Your task to perform on an android device: How much does a 2 bedroom apartment rent for in Austin? Image 0: 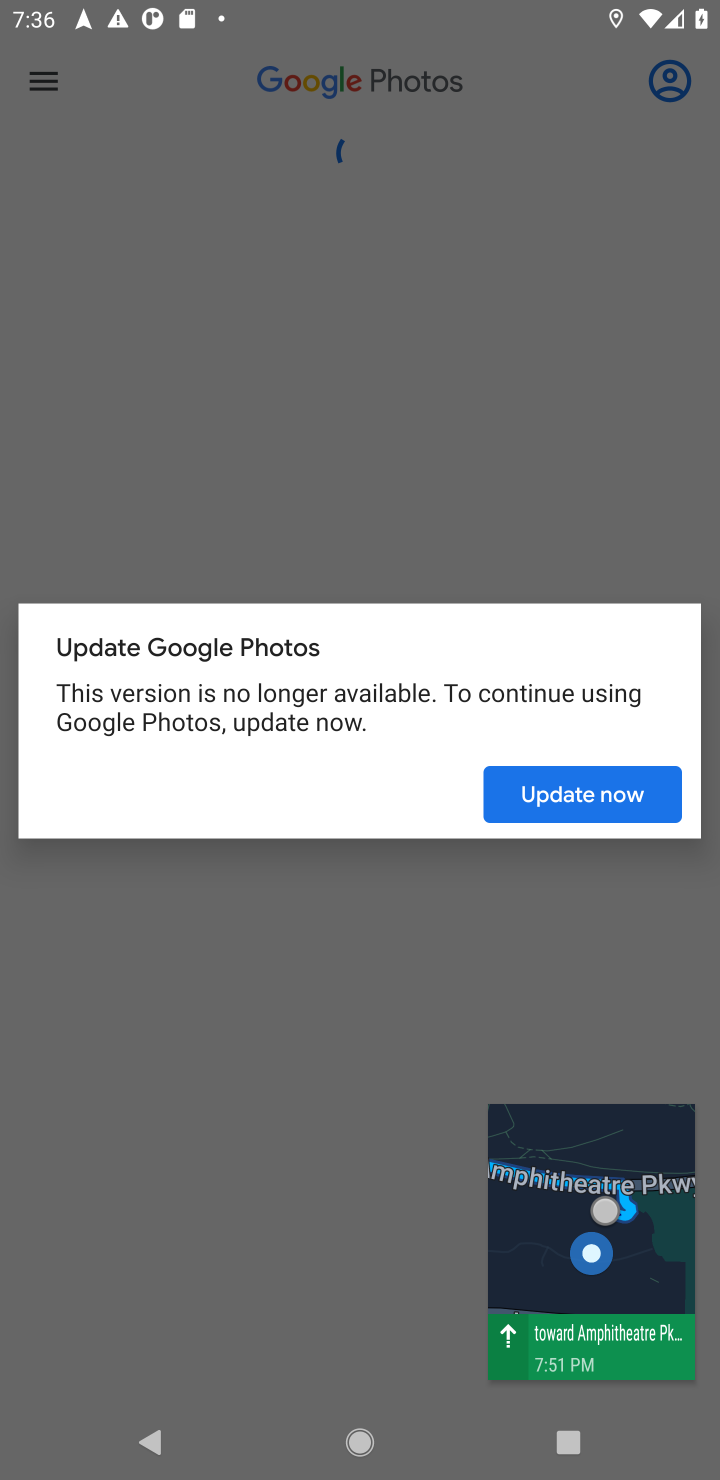
Step 0: press home button
Your task to perform on an android device: How much does a 2 bedroom apartment rent for in Austin? Image 1: 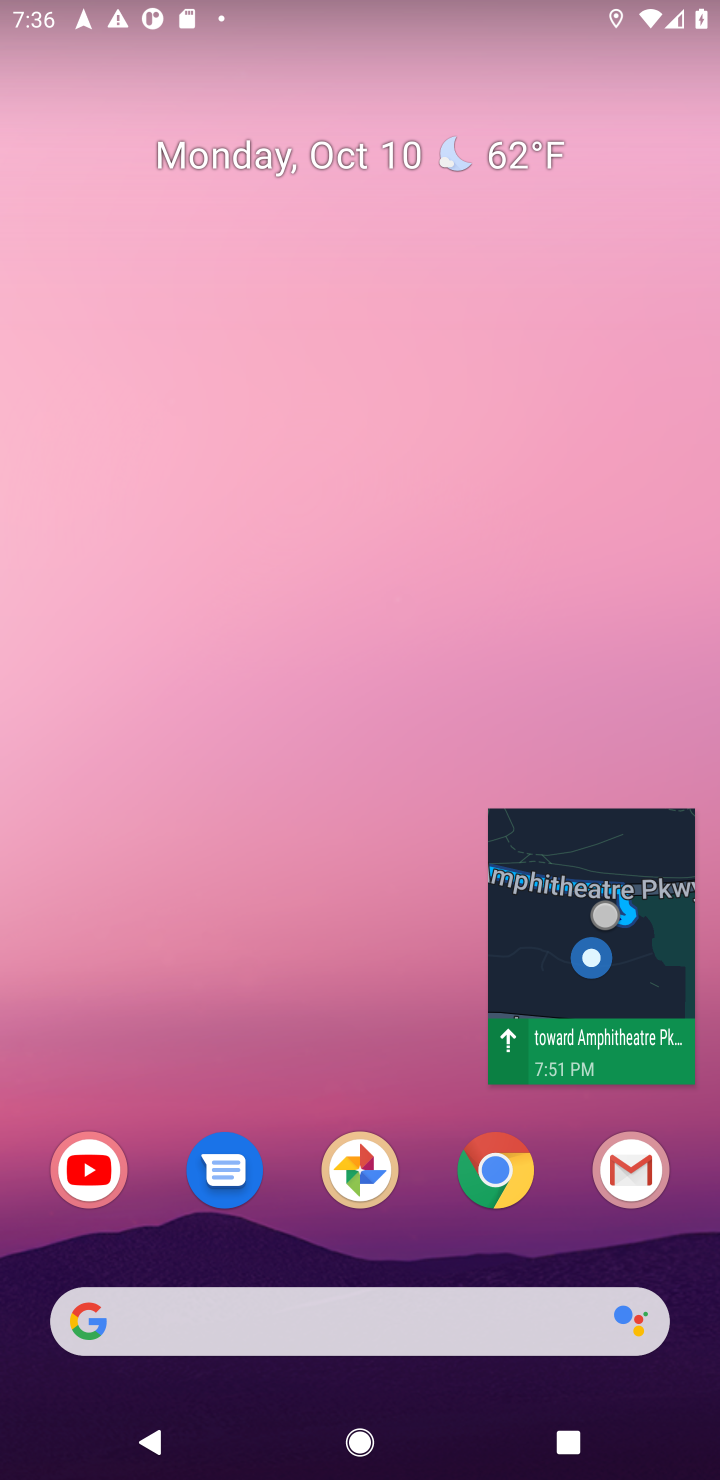
Step 1: drag from (631, 977) to (361, 1327)
Your task to perform on an android device: How much does a 2 bedroom apartment rent for in Austin? Image 2: 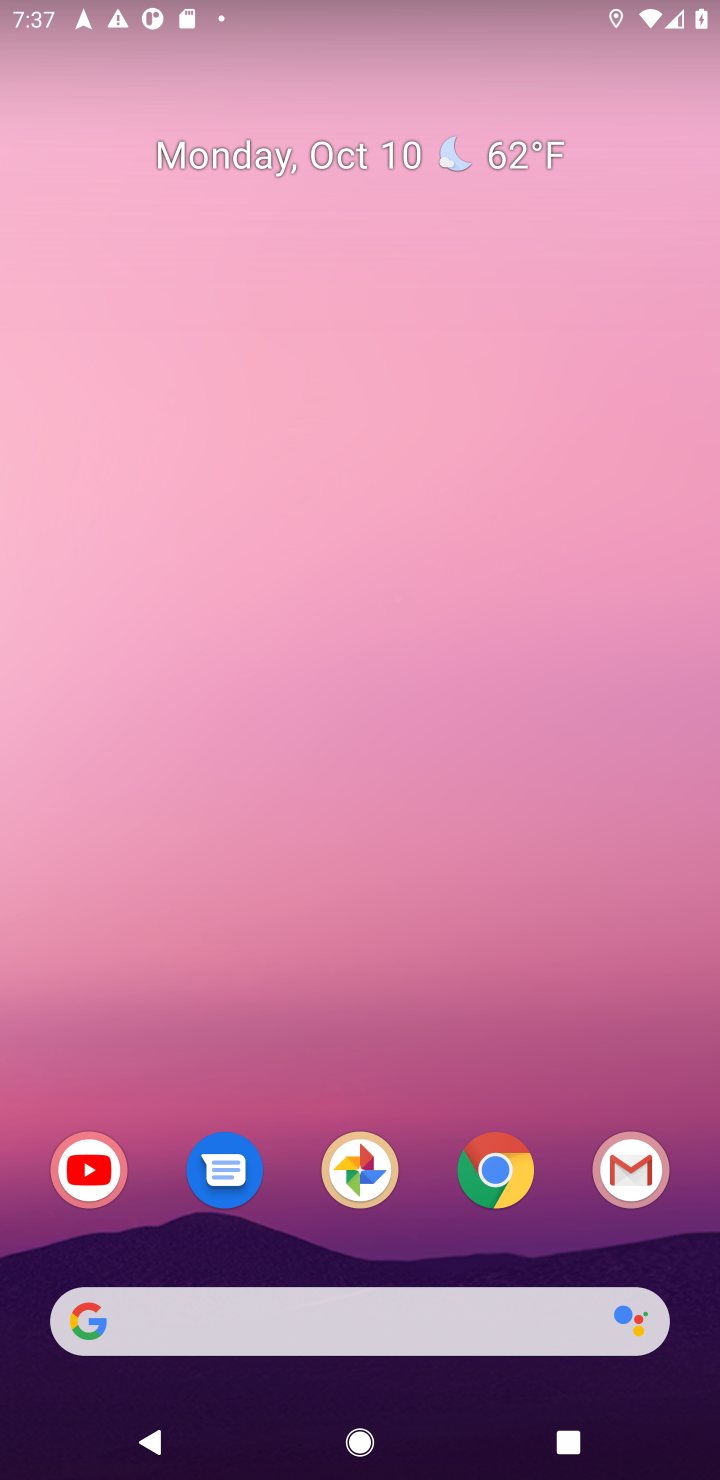
Step 2: click (487, 1205)
Your task to perform on an android device: How much does a 2 bedroom apartment rent for in Austin? Image 3: 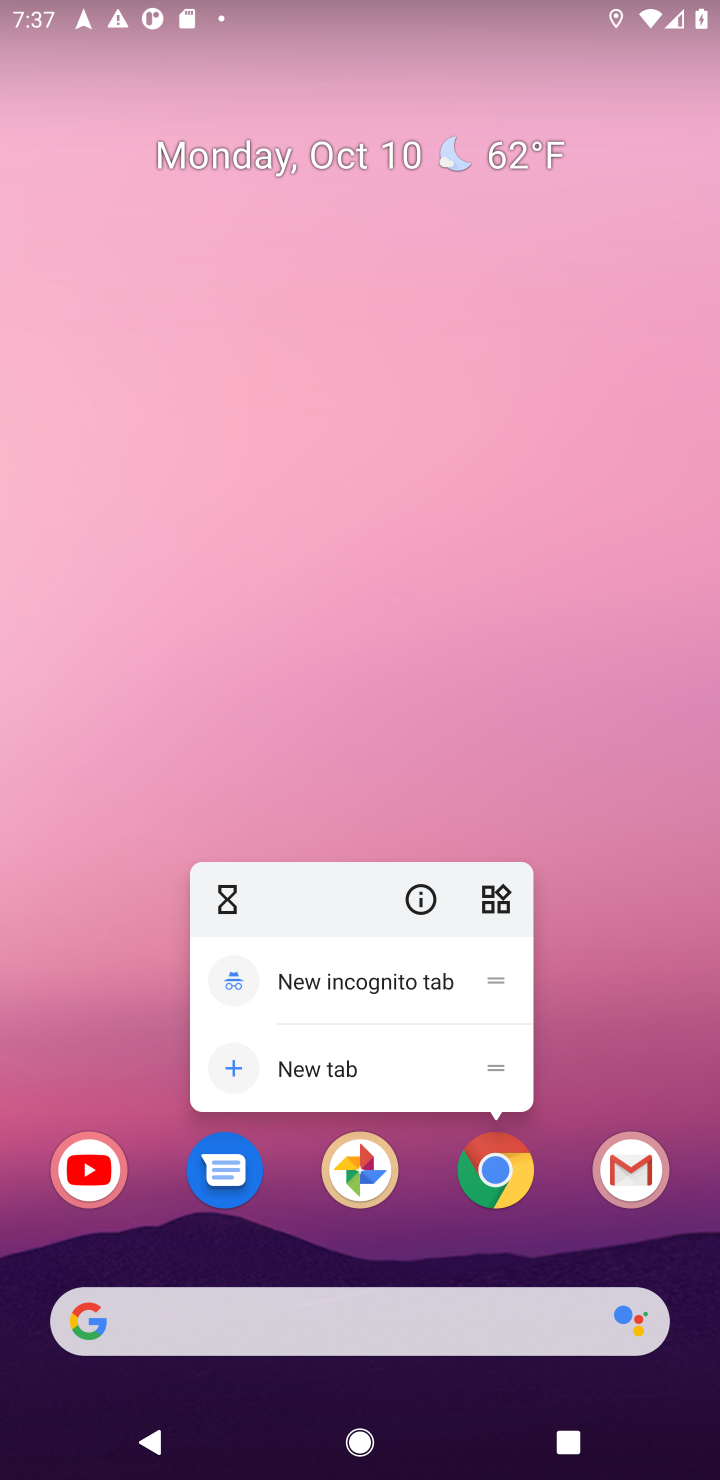
Step 3: click (501, 1170)
Your task to perform on an android device: How much does a 2 bedroom apartment rent for in Austin? Image 4: 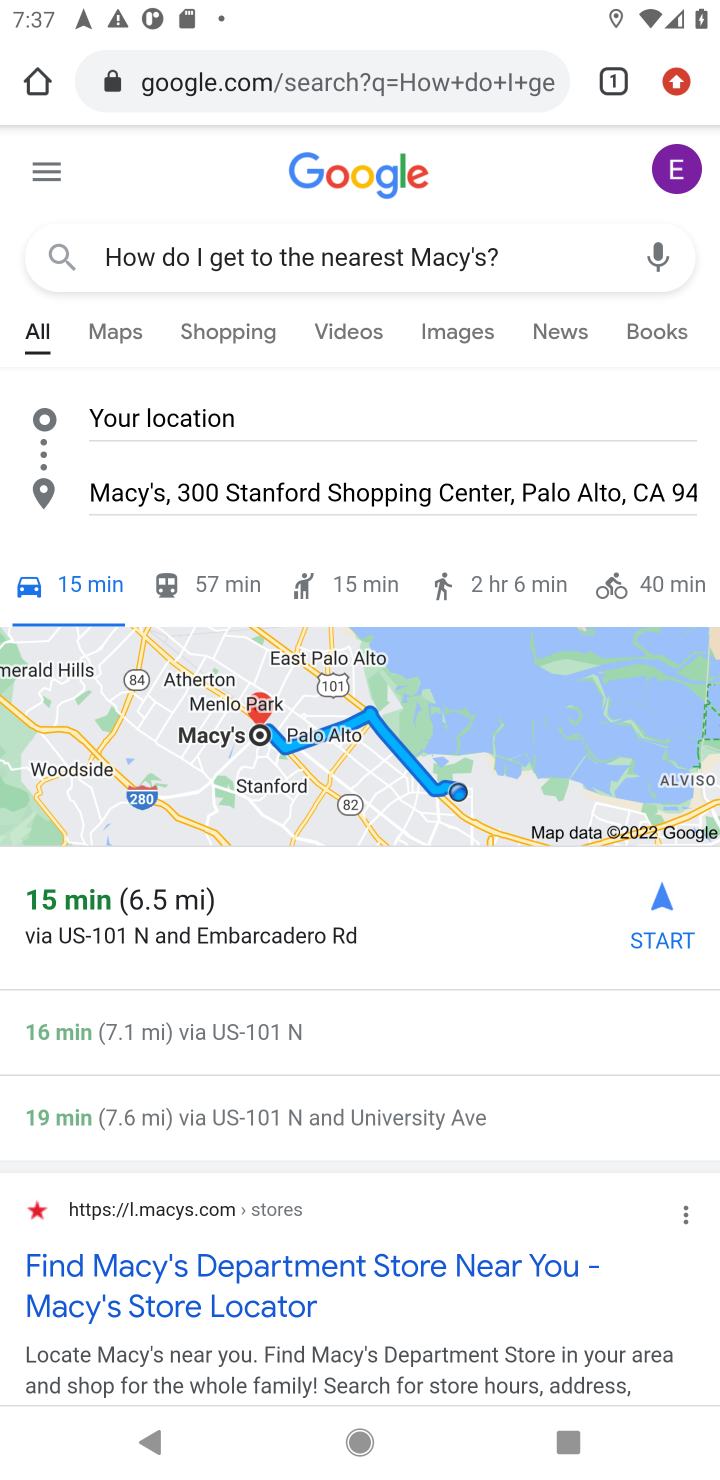
Step 4: click (450, 90)
Your task to perform on an android device: How much does a 2 bedroom apartment rent for in Austin? Image 5: 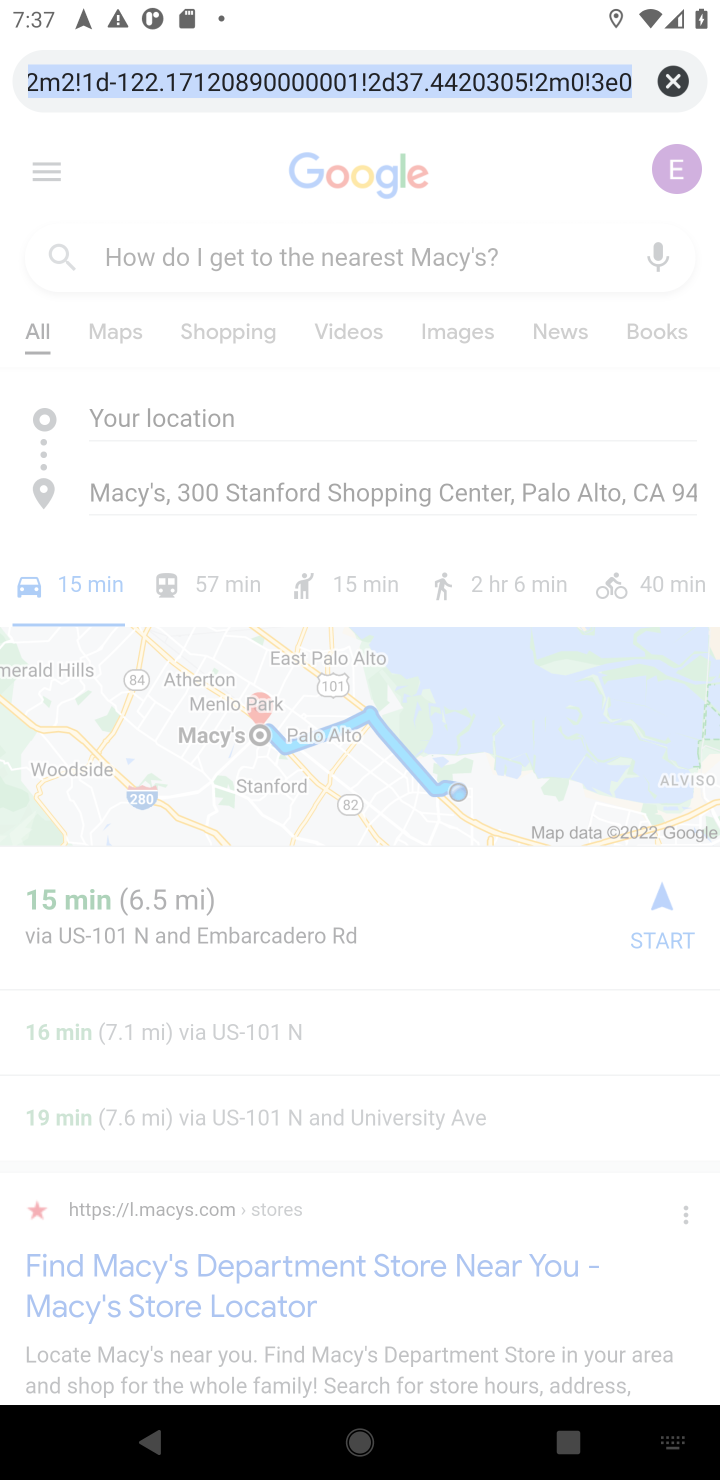
Step 5: type "2 bedroom apartment rent for in Austin"
Your task to perform on an android device: How much does a 2 bedroom apartment rent for in Austin? Image 6: 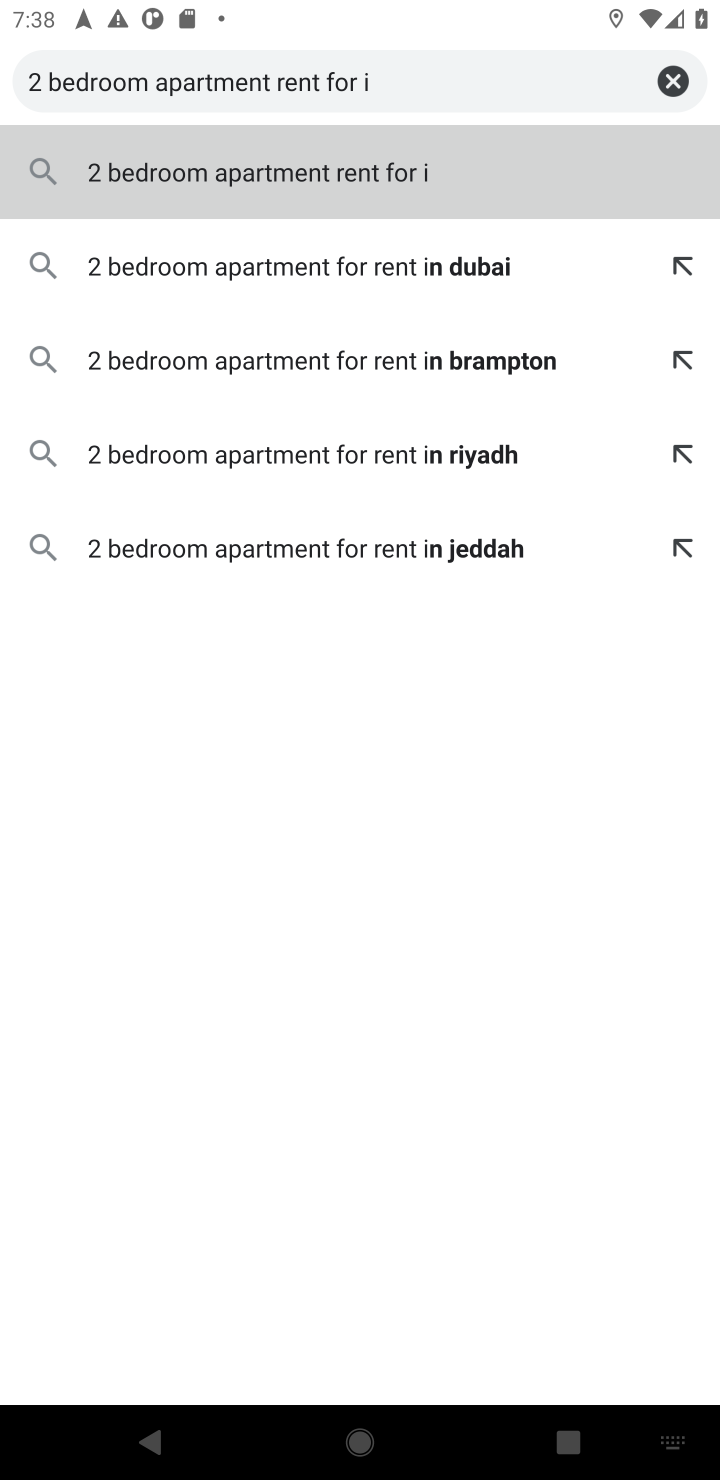
Step 6: type "n Austin"
Your task to perform on an android device: How much does a 2 bedroom apartment rent for in Austin? Image 7: 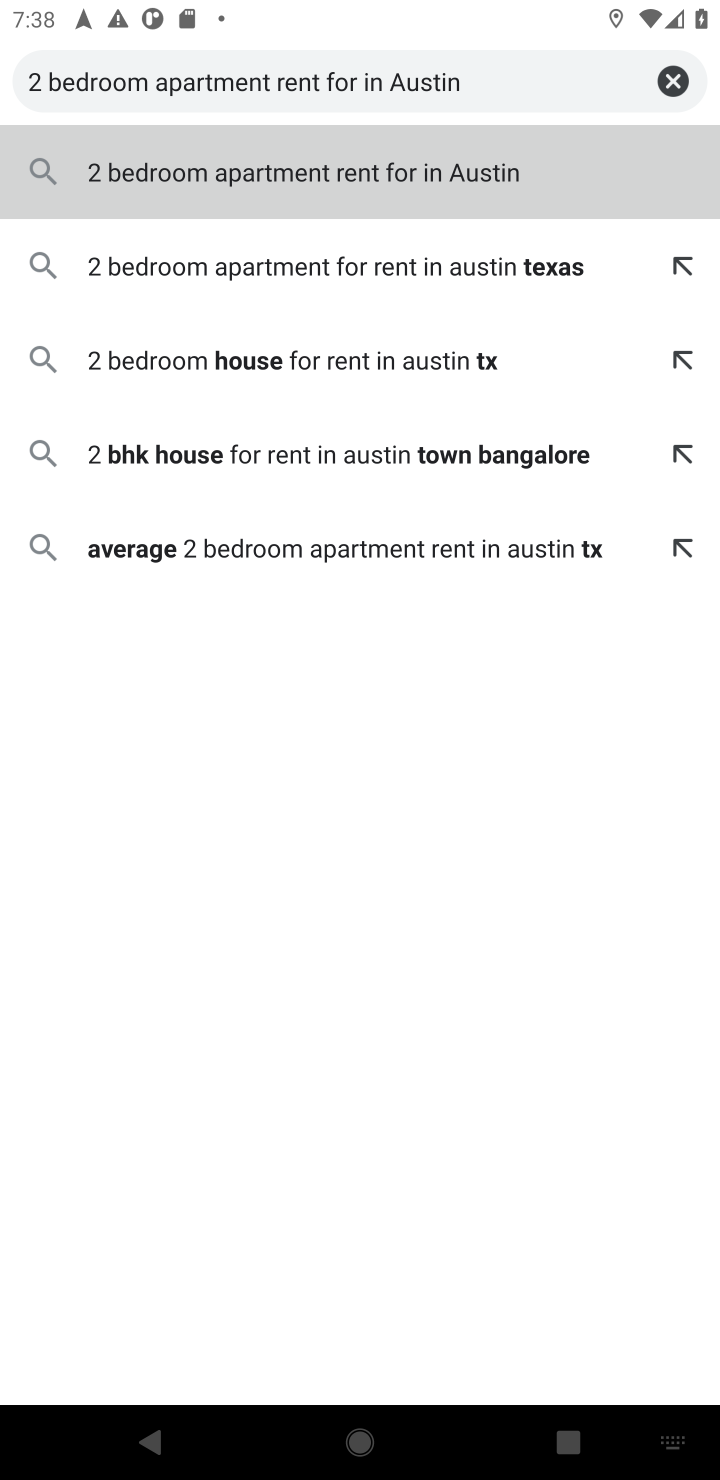
Step 7: click (552, 147)
Your task to perform on an android device: How much does a 2 bedroom apartment rent for in Austin? Image 8: 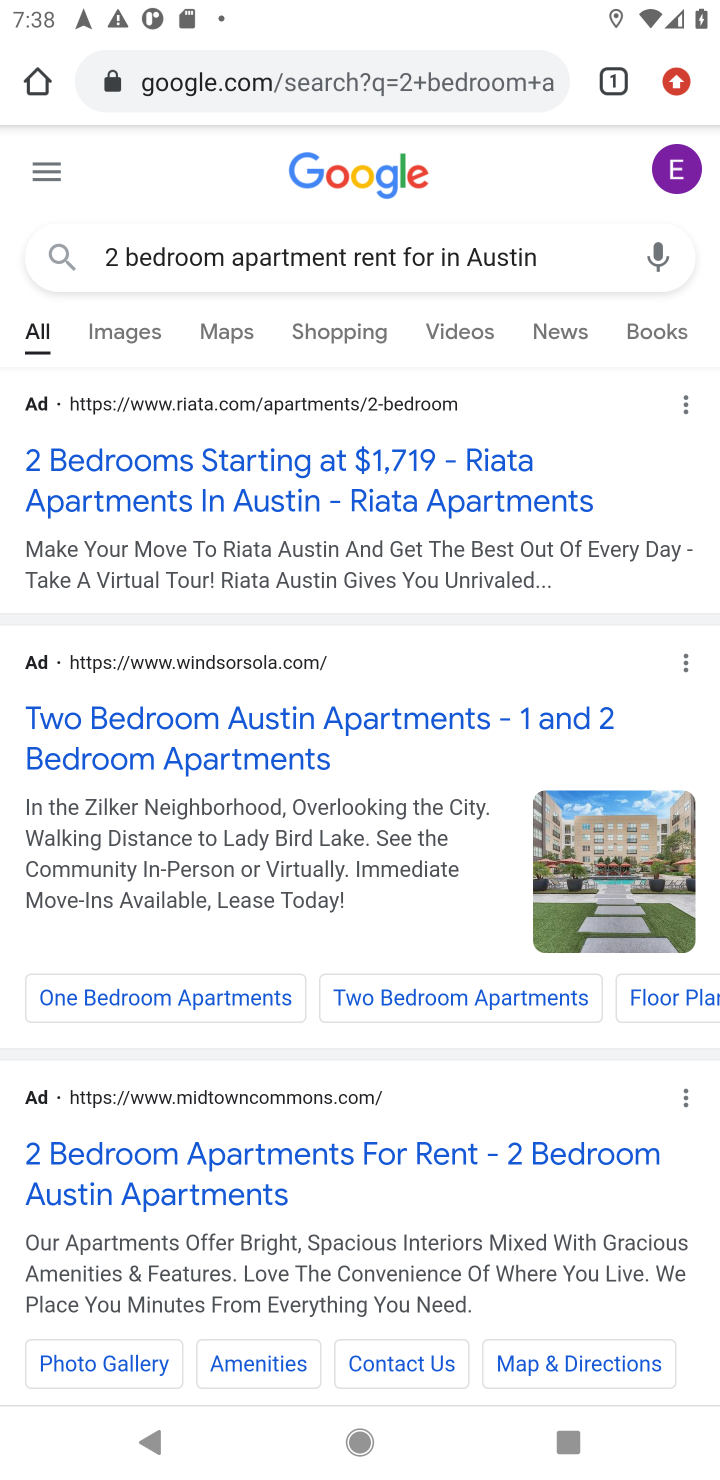
Step 8: drag from (470, 1121) to (434, 516)
Your task to perform on an android device: How much does a 2 bedroom apartment rent for in Austin? Image 9: 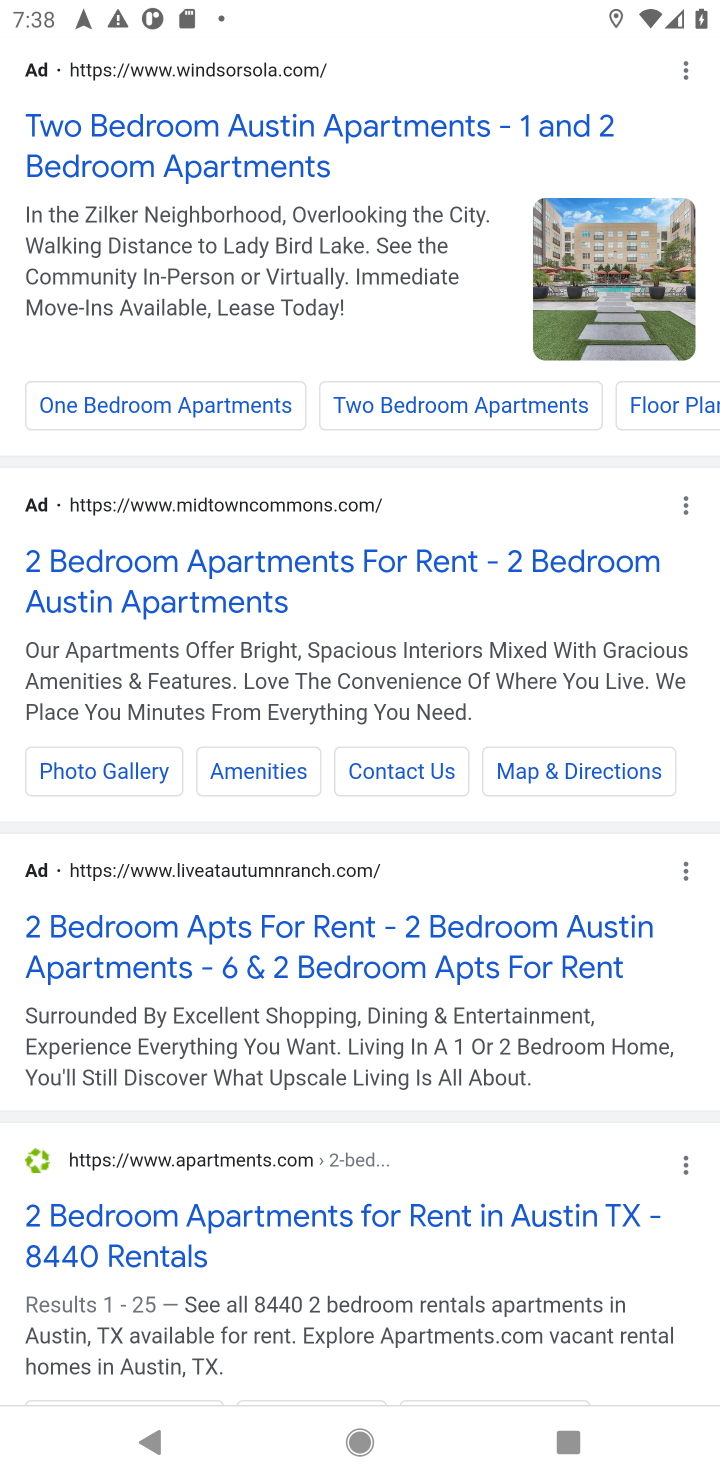
Step 9: click (351, 1217)
Your task to perform on an android device: How much does a 2 bedroom apartment rent for in Austin? Image 10: 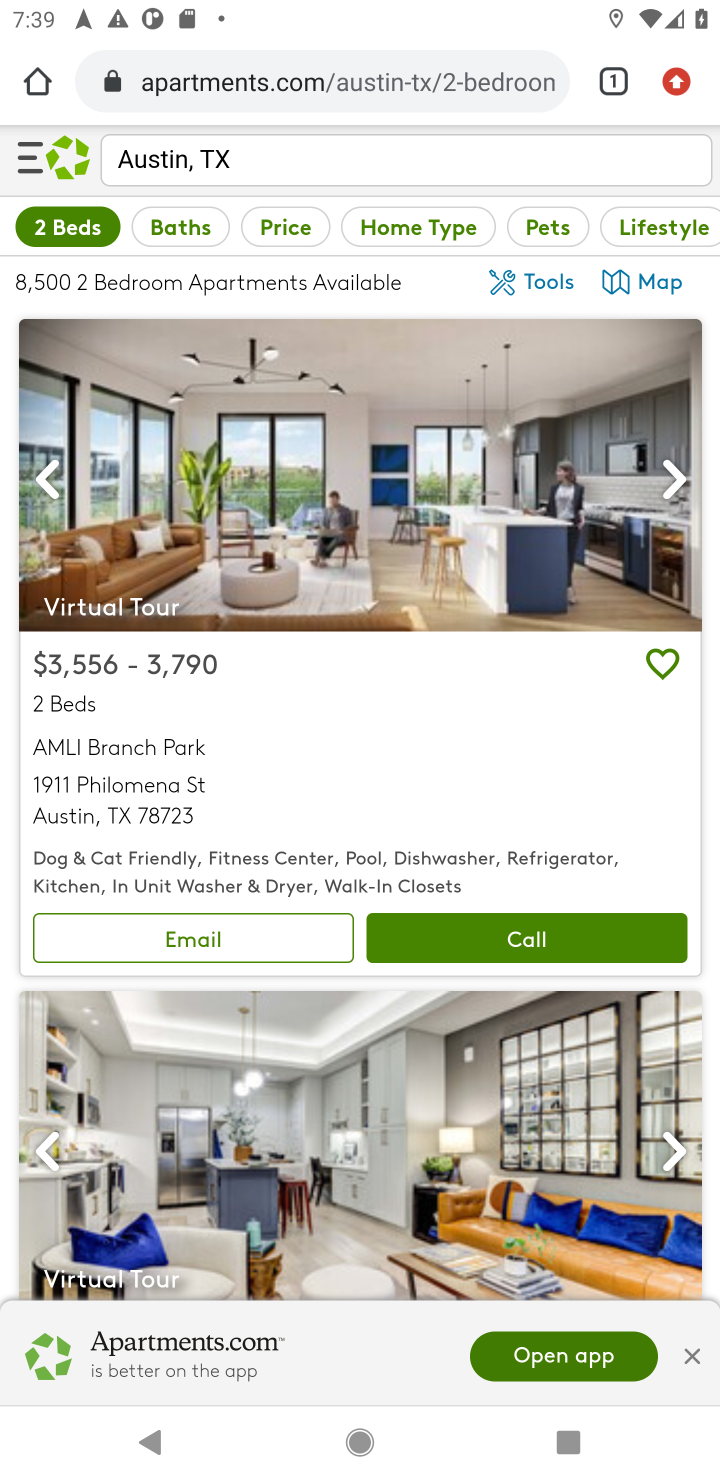
Step 10: task complete